Your task to perform on an android device: Go to Wikipedia Image 0: 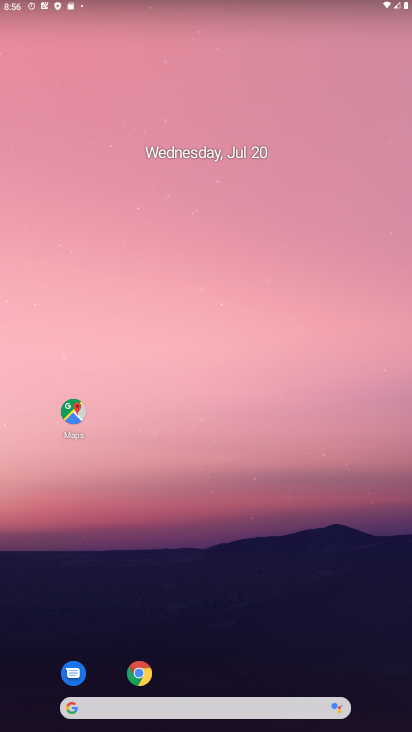
Step 0: drag from (375, 662) to (113, 34)
Your task to perform on an android device: Go to Wikipedia Image 1: 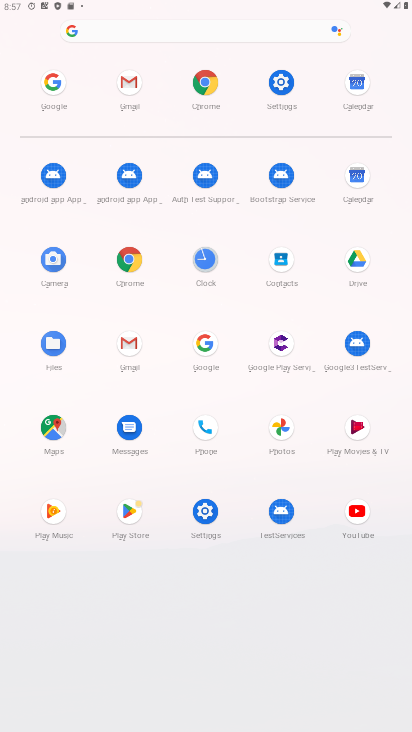
Step 1: click (193, 342)
Your task to perform on an android device: Go to Wikipedia Image 2: 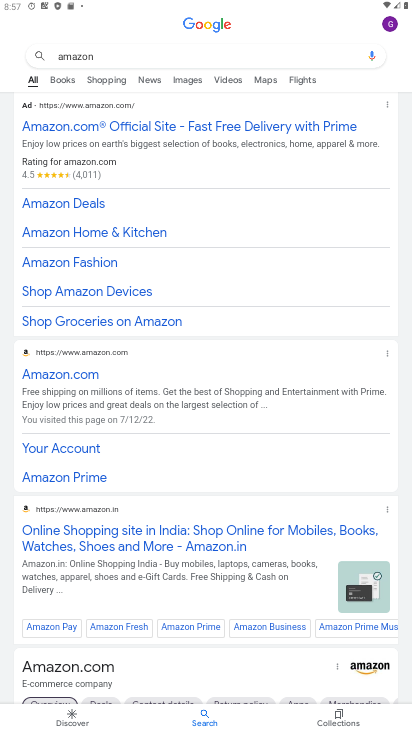
Step 2: press back button
Your task to perform on an android device: Go to Wikipedia Image 3: 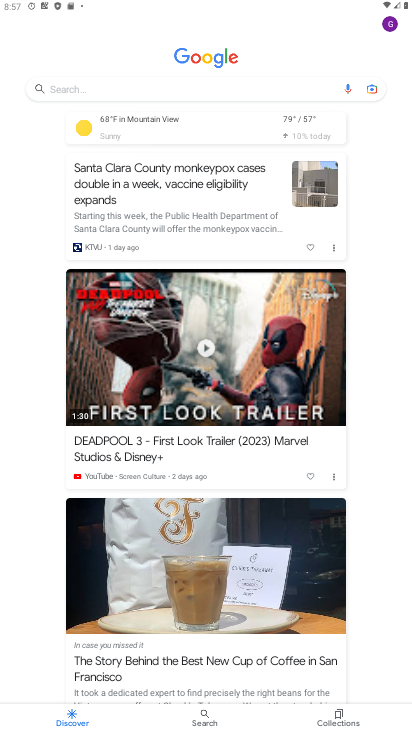
Step 3: click (63, 84)
Your task to perform on an android device: Go to Wikipedia Image 4: 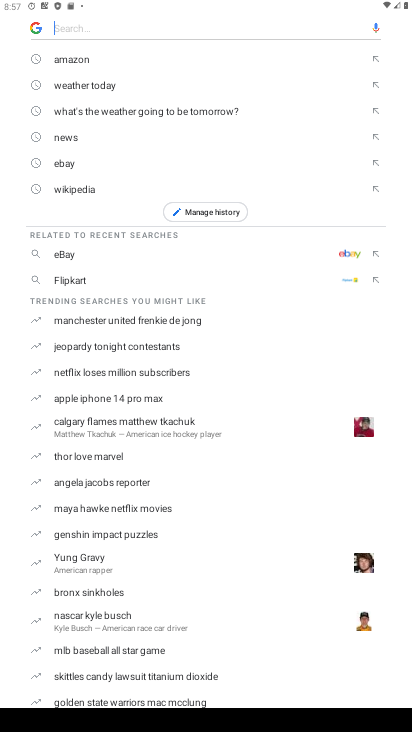
Step 4: click (74, 190)
Your task to perform on an android device: Go to Wikipedia Image 5: 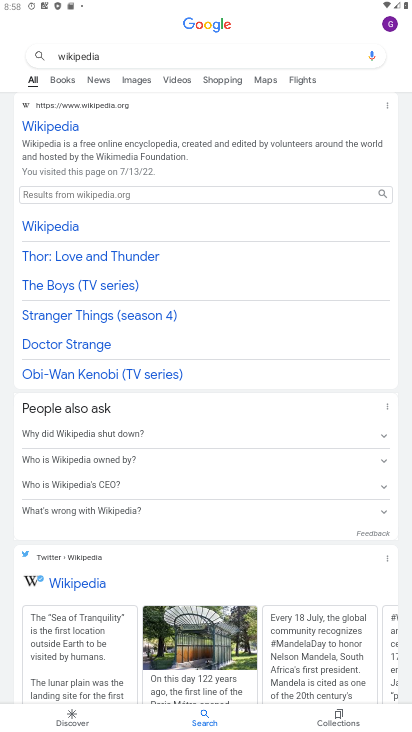
Step 5: task complete